Your task to perform on an android device: Empty the shopping cart on target.com. Image 0: 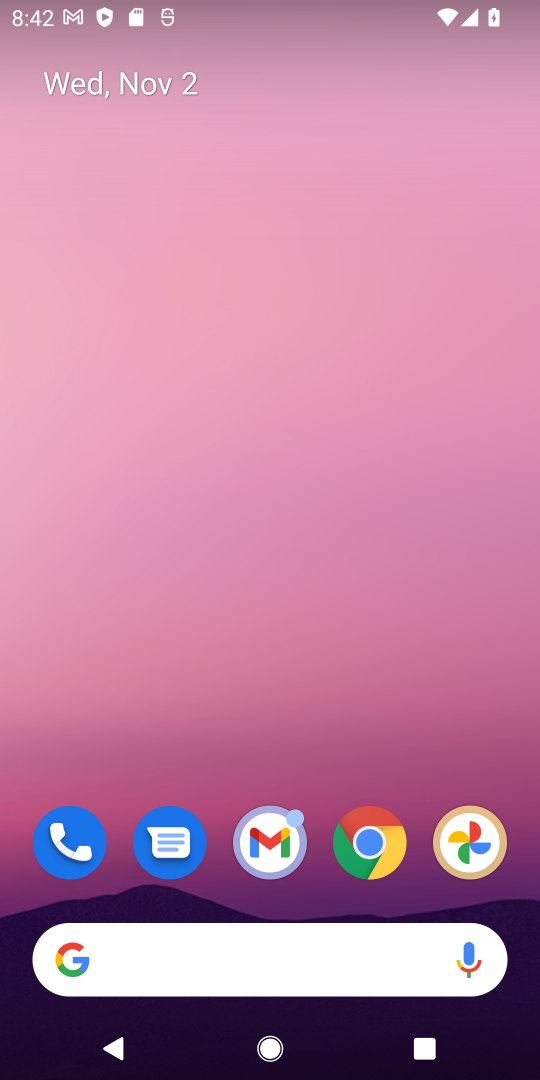
Step 0: drag from (111, 912) to (143, 88)
Your task to perform on an android device: Empty the shopping cart on target.com. Image 1: 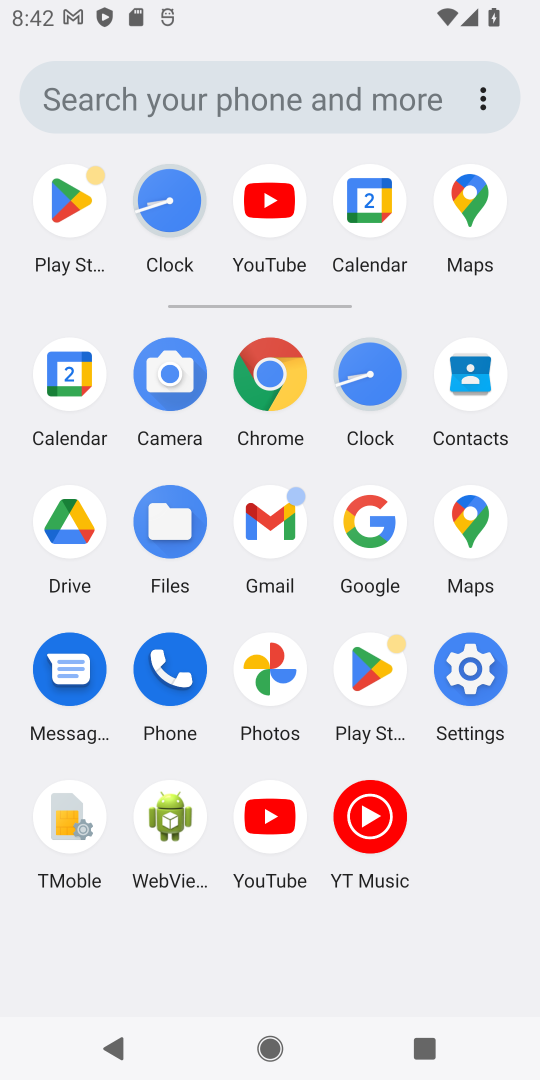
Step 1: click (394, 508)
Your task to perform on an android device: Empty the shopping cart on target.com. Image 2: 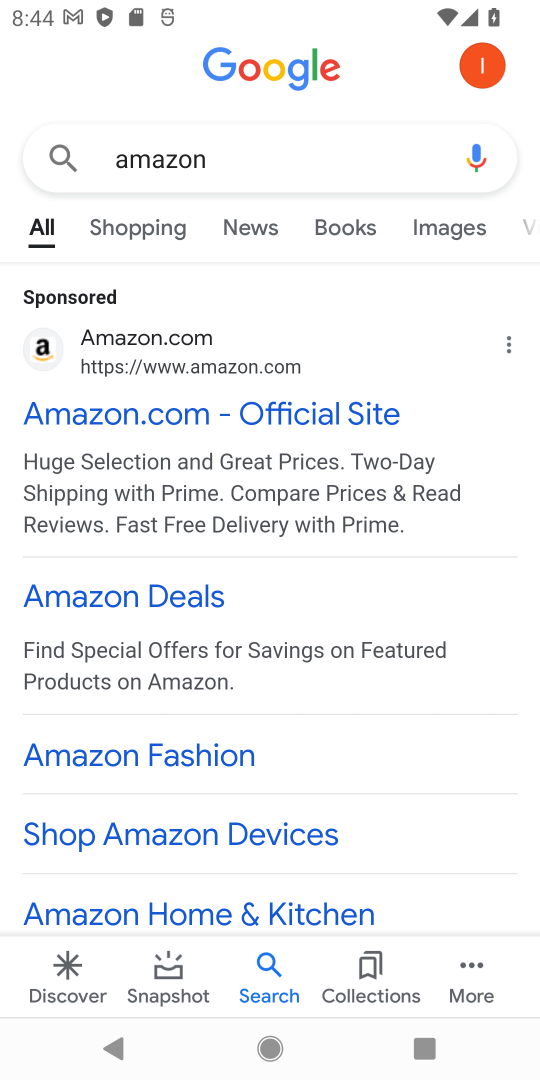
Step 2: click (249, 135)
Your task to perform on an android device: Empty the shopping cart on target.com. Image 3: 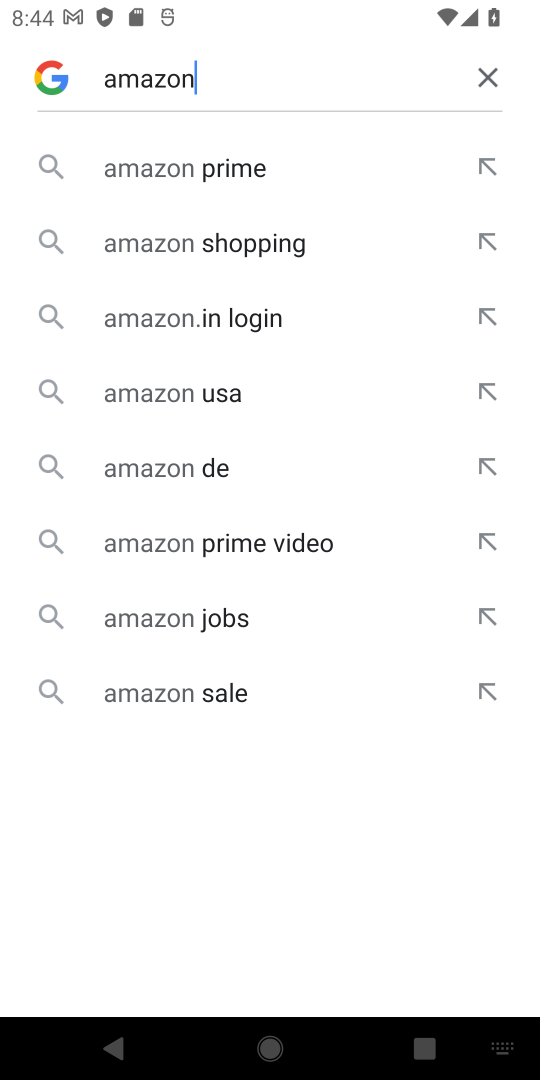
Step 3: click (510, 71)
Your task to perform on an android device: Empty the shopping cart on target.com. Image 4: 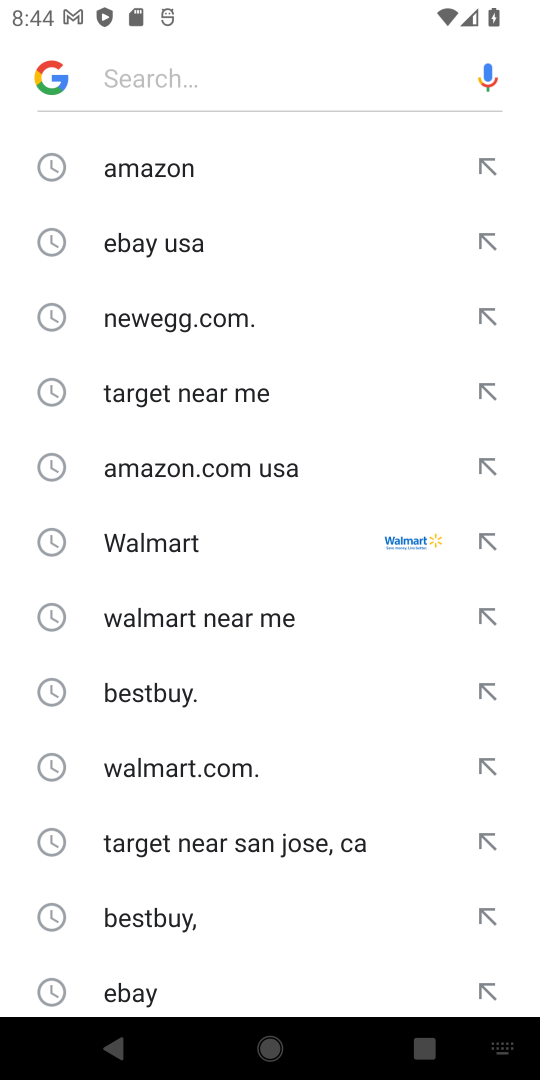
Step 4: click (227, 71)
Your task to perform on an android device: Empty the shopping cart on target.com. Image 5: 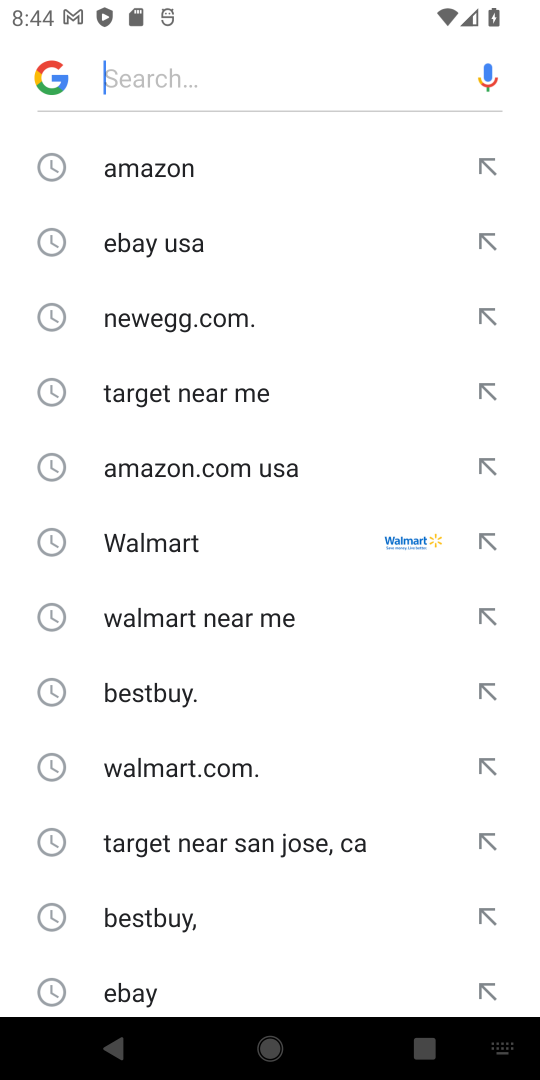
Step 5: type "target "
Your task to perform on an android device: Empty the shopping cart on target.com. Image 6: 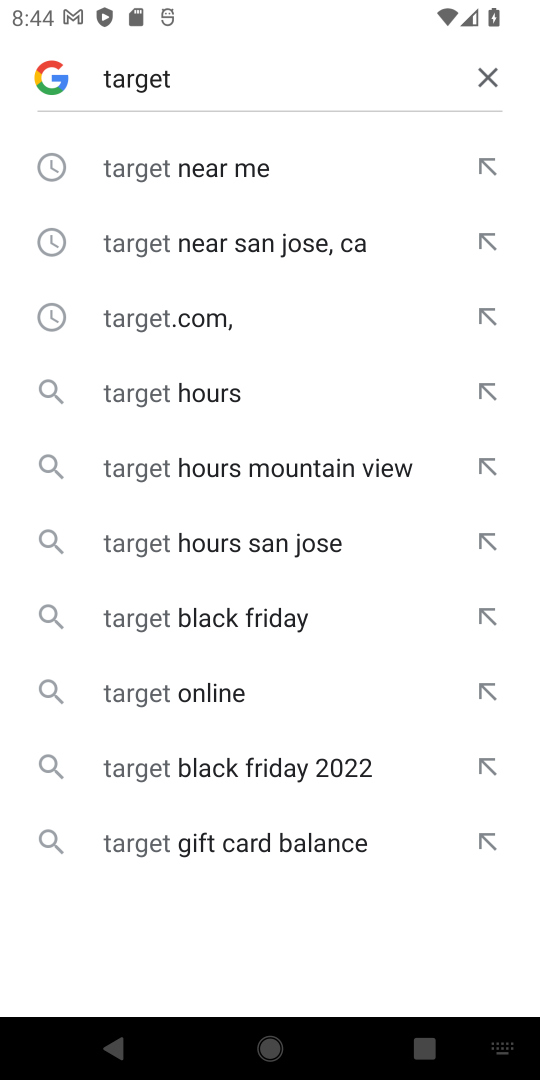
Step 6: click (202, 180)
Your task to perform on an android device: Empty the shopping cart on target.com. Image 7: 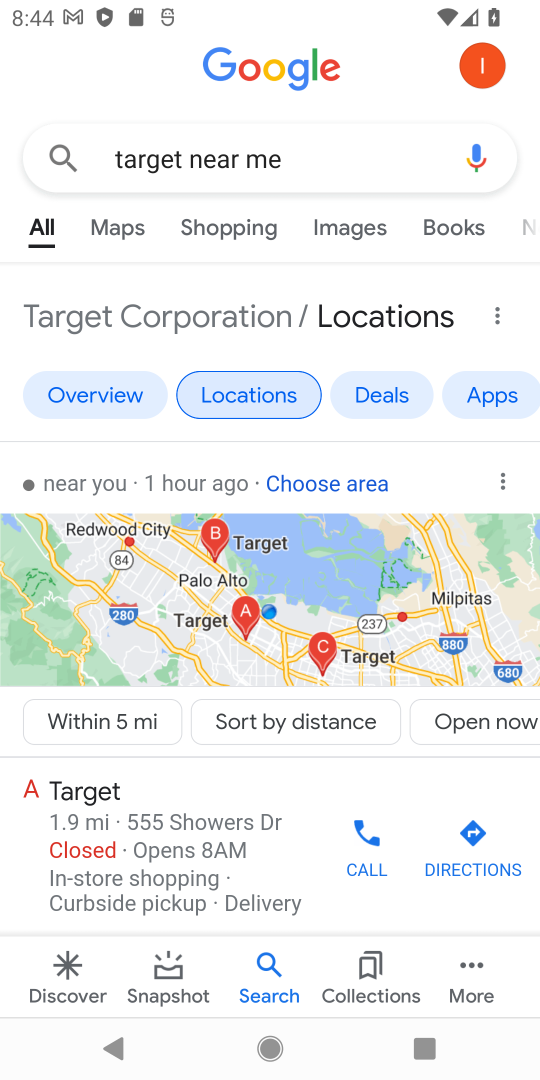
Step 7: drag from (156, 858) to (249, 221)
Your task to perform on an android device: Empty the shopping cart on target.com. Image 8: 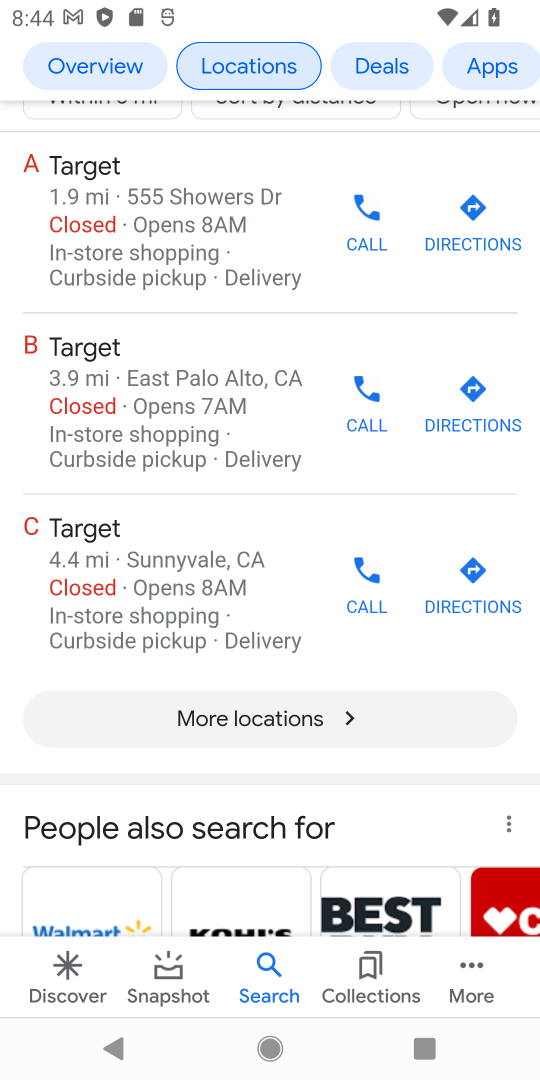
Step 8: drag from (113, 722) to (188, 184)
Your task to perform on an android device: Empty the shopping cart on target.com. Image 9: 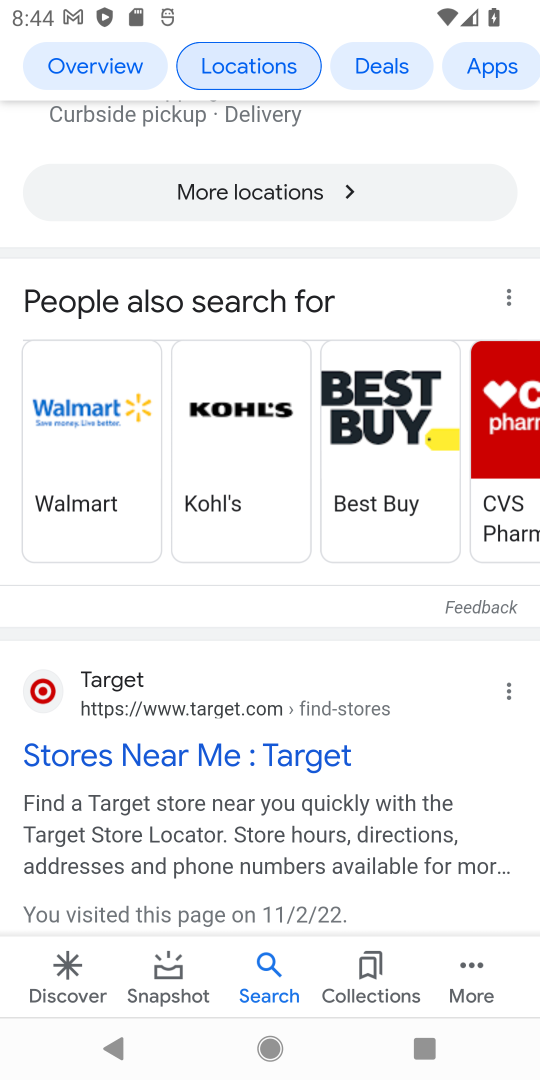
Step 9: click (36, 710)
Your task to perform on an android device: Empty the shopping cart on target.com. Image 10: 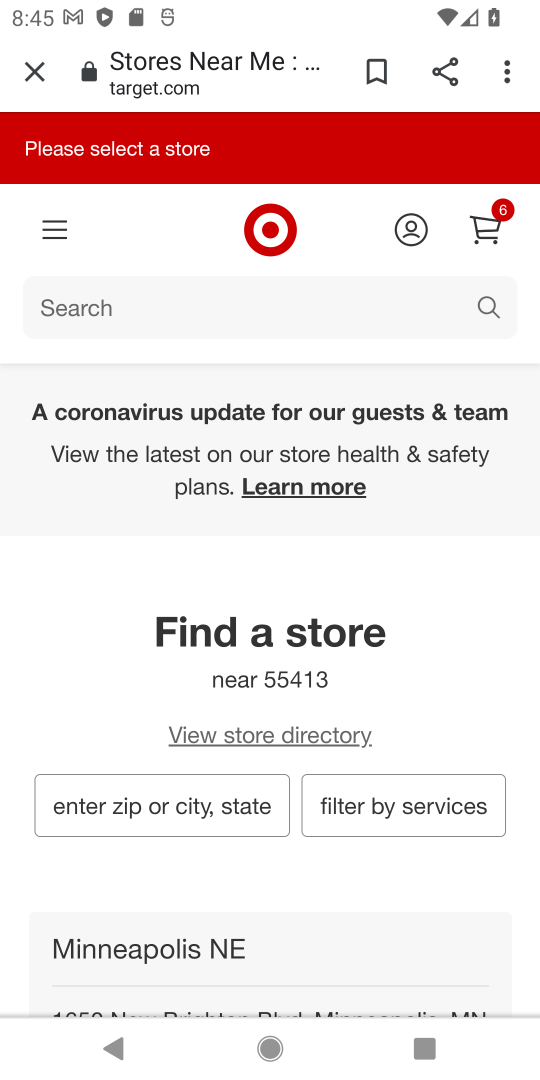
Step 10: click (488, 219)
Your task to perform on an android device: Empty the shopping cart on target.com. Image 11: 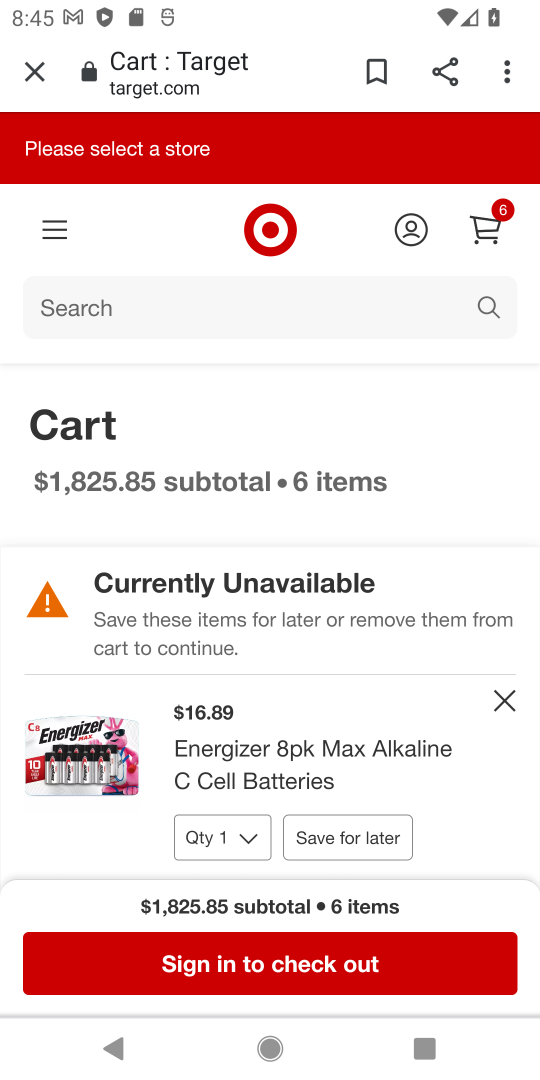
Step 11: drag from (312, 889) to (345, 585)
Your task to perform on an android device: Empty the shopping cart on target.com. Image 12: 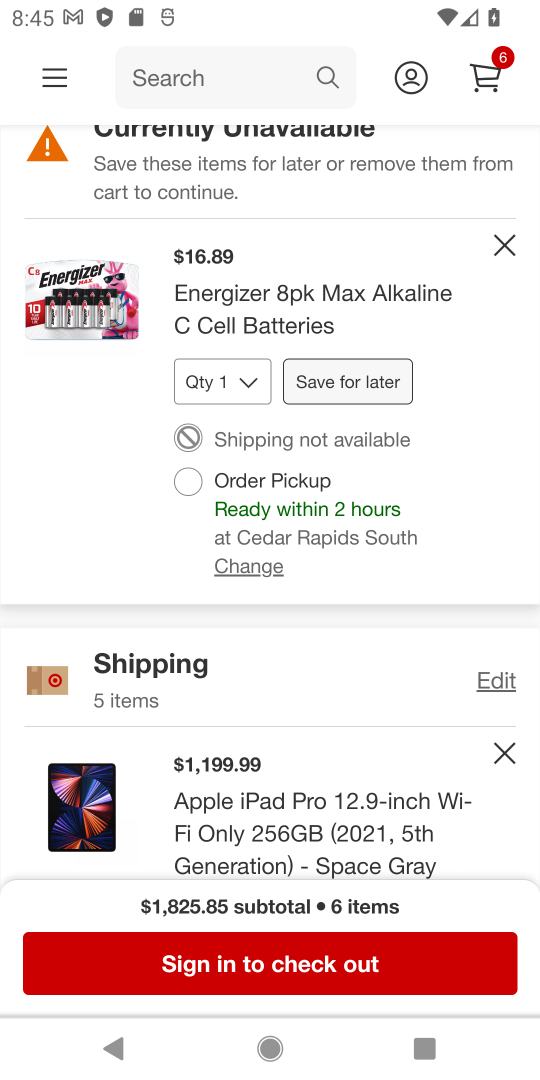
Step 12: click (502, 217)
Your task to perform on an android device: Empty the shopping cart on target.com. Image 13: 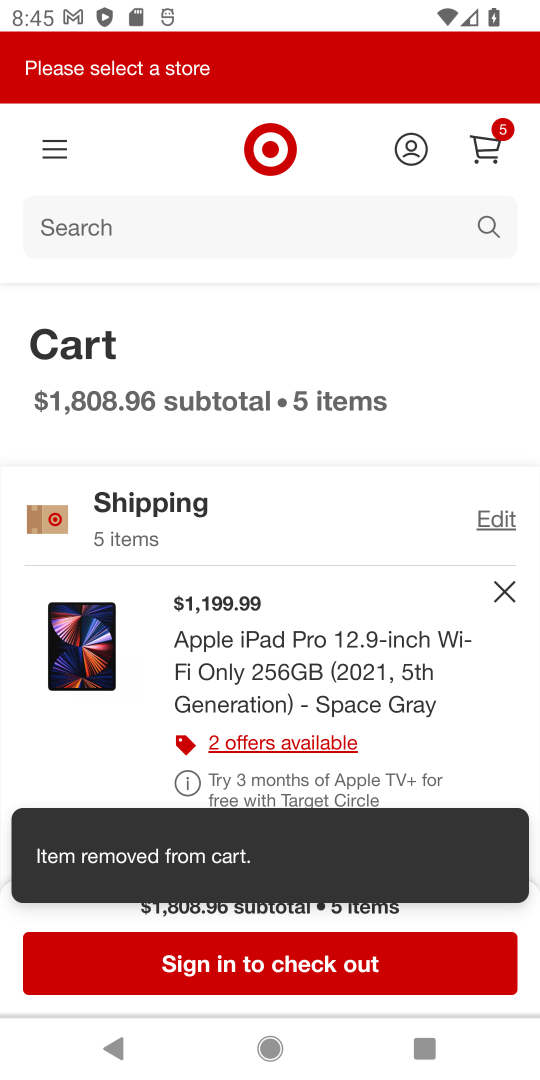
Step 13: click (507, 589)
Your task to perform on an android device: Empty the shopping cart on target.com. Image 14: 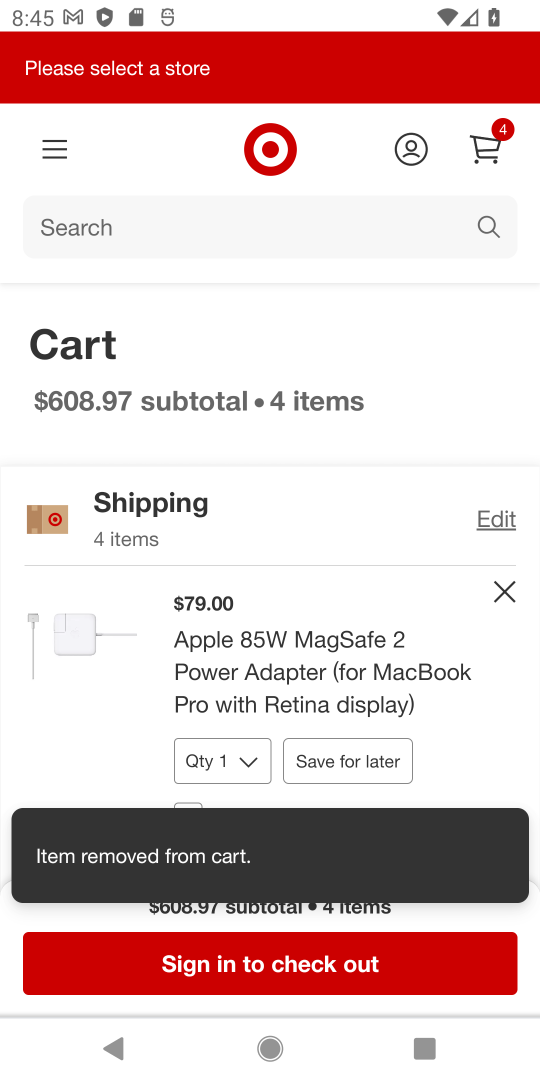
Step 14: click (507, 589)
Your task to perform on an android device: Empty the shopping cart on target.com. Image 15: 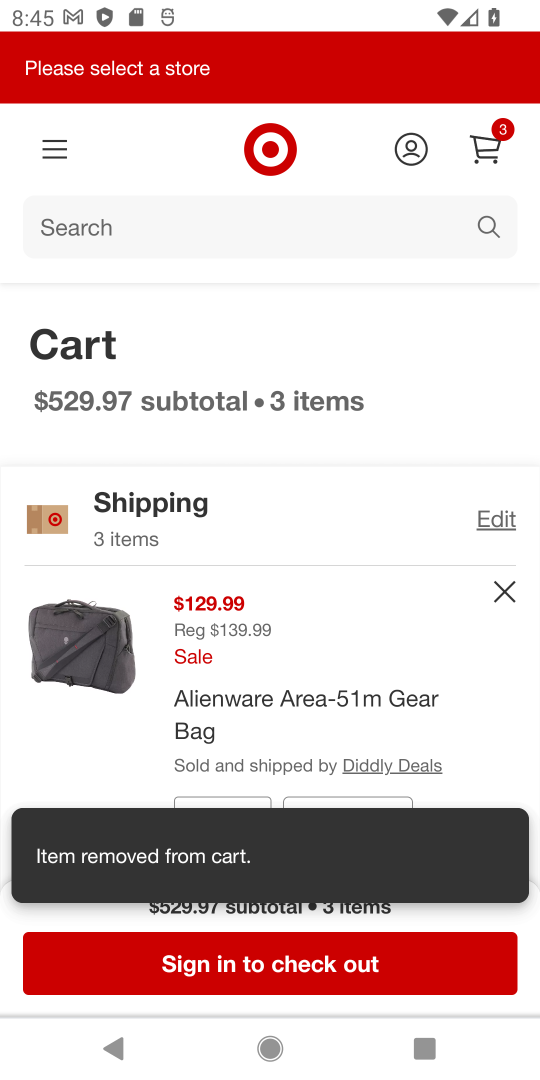
Step 15: click (507, 589)
Your task to perform on an android device: Empty the shopping cart on target.com. Image 16: 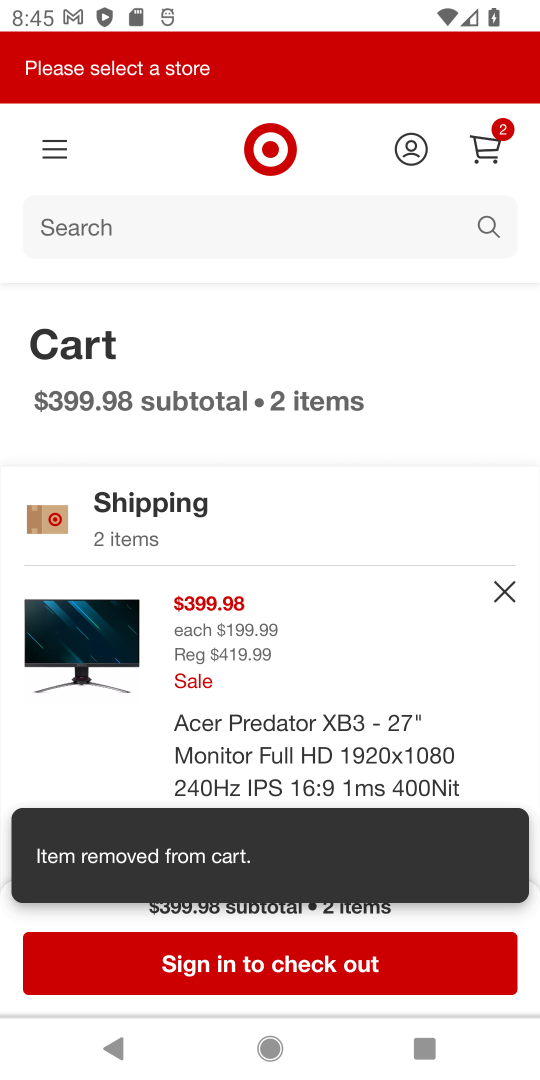
Step 16: click (507, 589)
Your task to perform on an android device: Empty the shopping cart on target.com. Image 17: 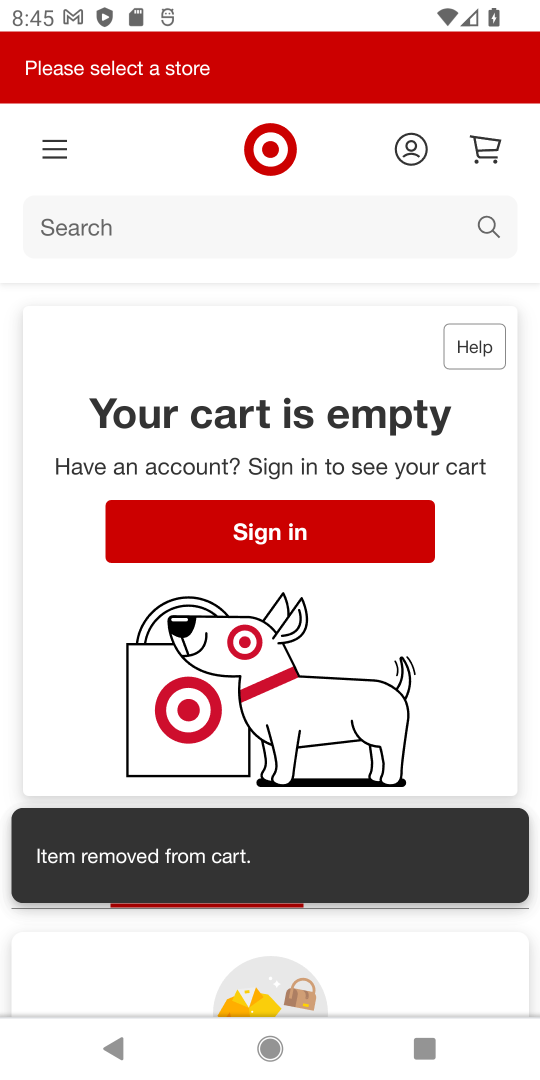
Step 17: click (507, 589)
Your task to perform on an android device: Empty the shopping cart on target.com. Image 18: 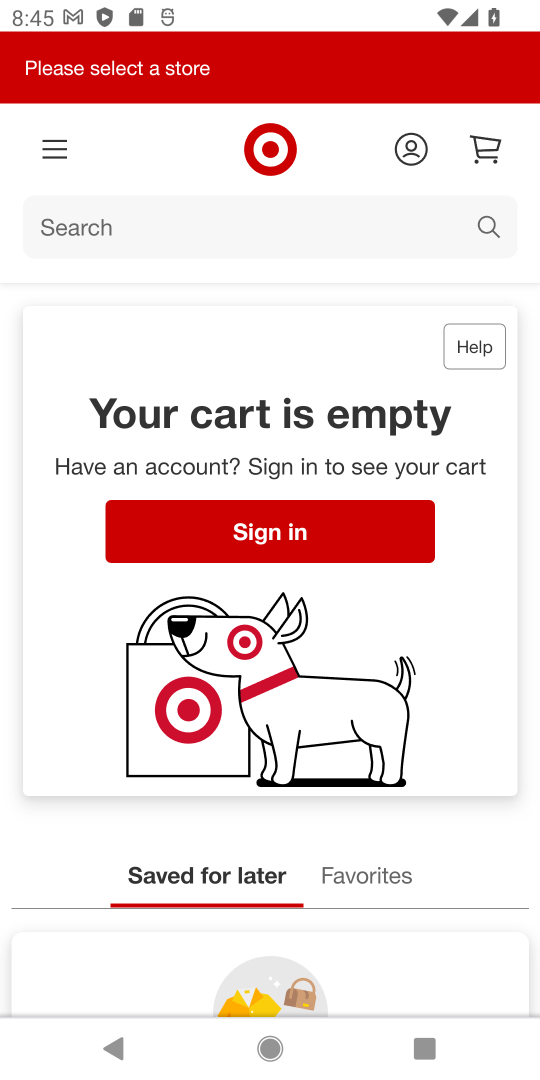
Step 18: task complete